Your task to perform on an android device: allow cookies in the chrome app Image 0: 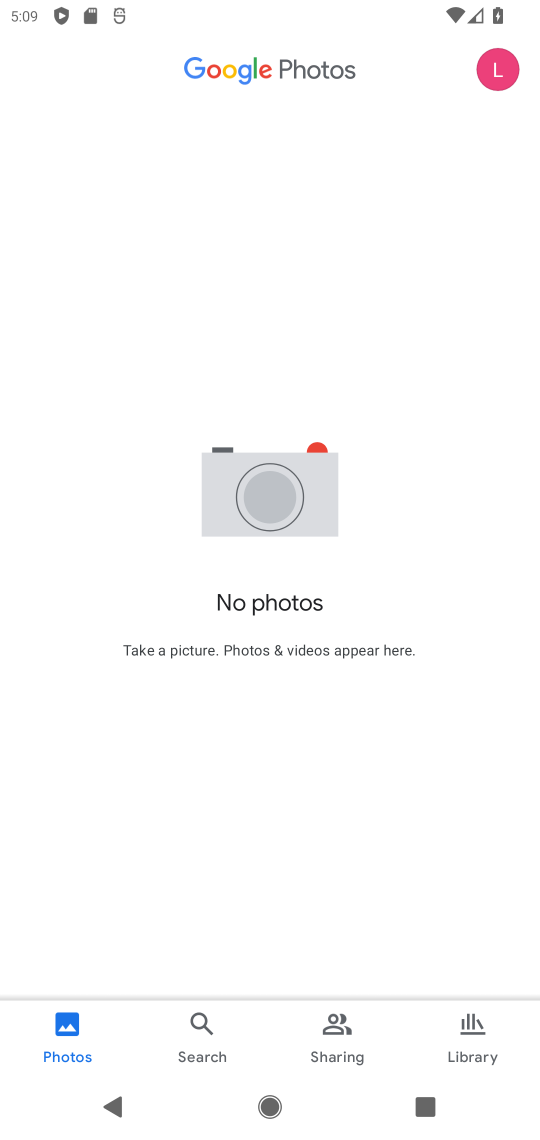
Step 0: press home button
Your task to perform on an android device: allow cookies in the chrome app Image 1: 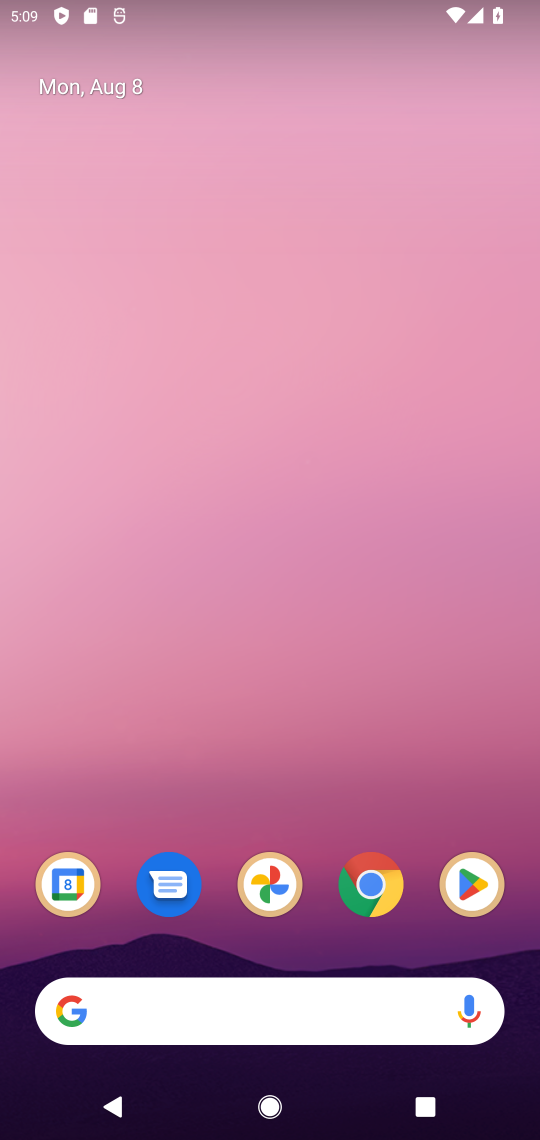
Step 1: drag from (430, 816) to (454, 148)
Your task to perform on an android device: allow cookies in the chrome app Image 2: 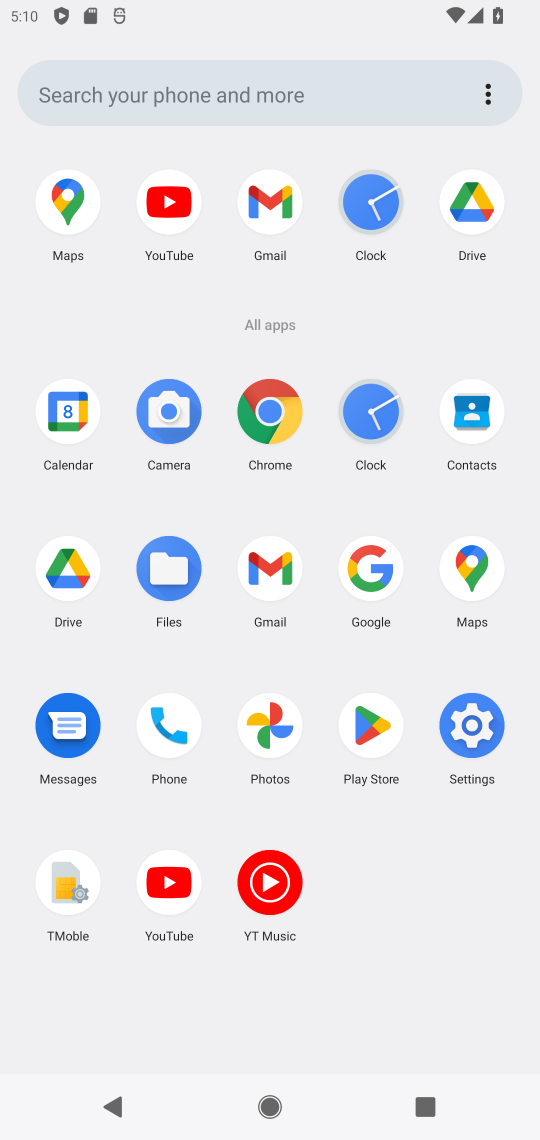
Step 2: click (279, 405)
Your task to perform on an android device: allow cookies in the chrome app Image 3: 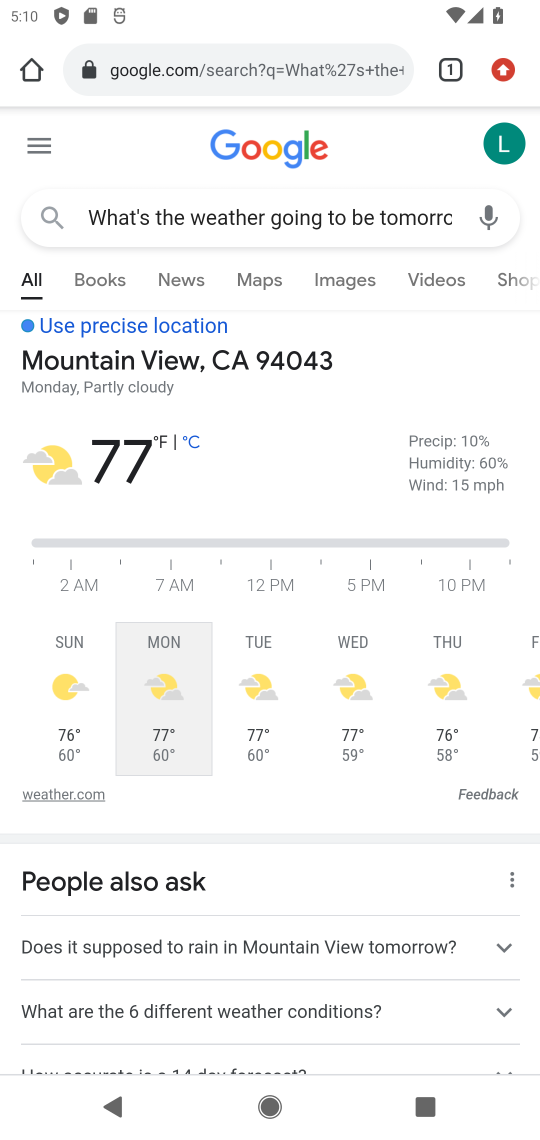
Step 3: click (509, 72)
Your task to perform on an android device: allow cookies in the chrome app Image 4: 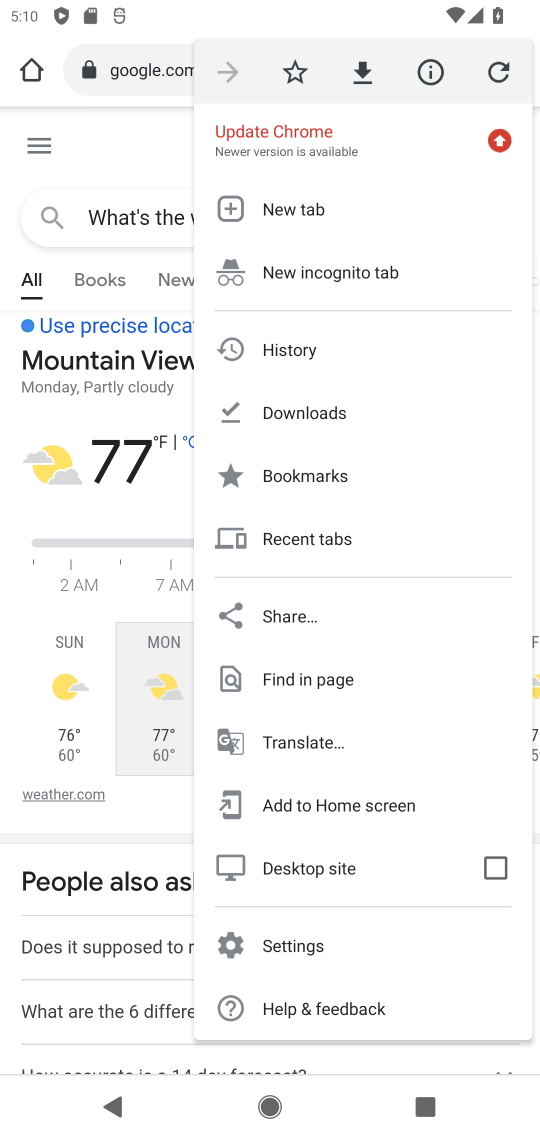
Step 4: click (303, 946)
Your task to perform on an android device: allow cookies in the chrome app Image 5: 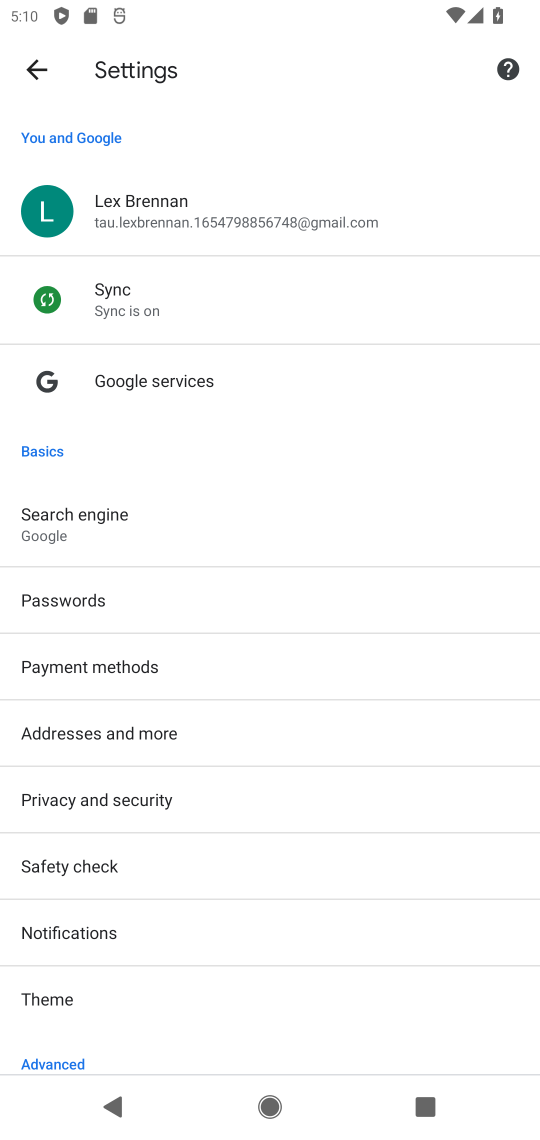
Step 5: drag from (289, 1039) to (213, 373)
Your task to perform on an android device: allow cookies in the chrome app Image 6: 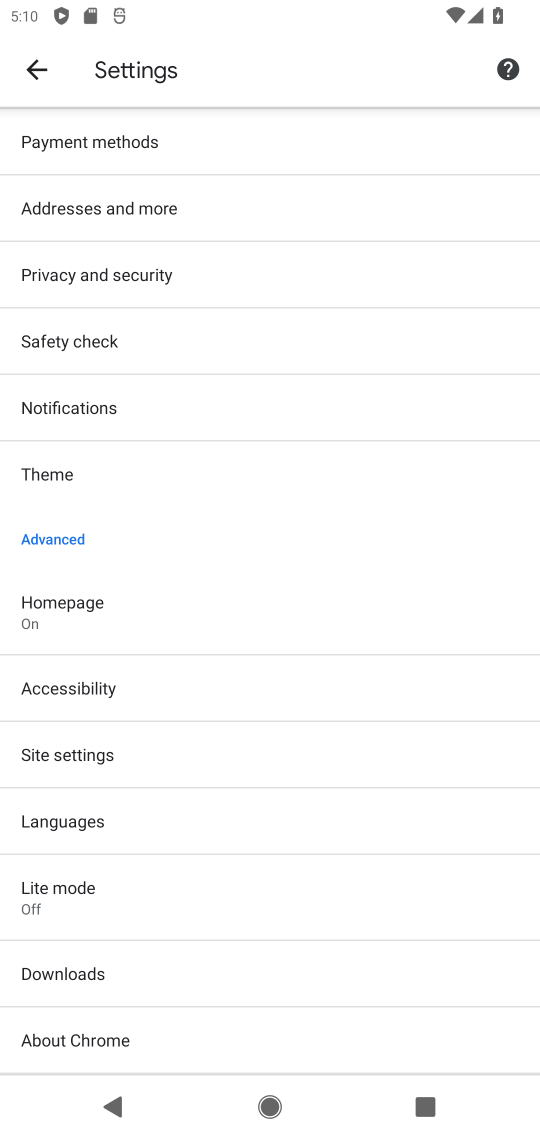
Step 6: click (177, 771)
Your task to perform on an android device: allow cookies in the chrome app Image 7: 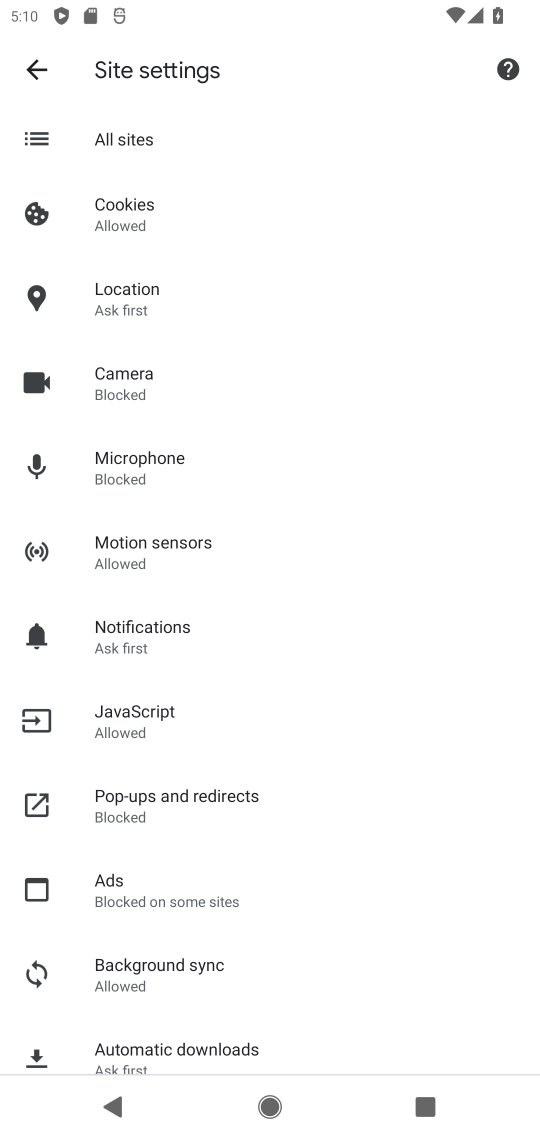
Step 7: click (229, 209)
Your task to perform on an android device: allow cookies in the chrome app Image 8: 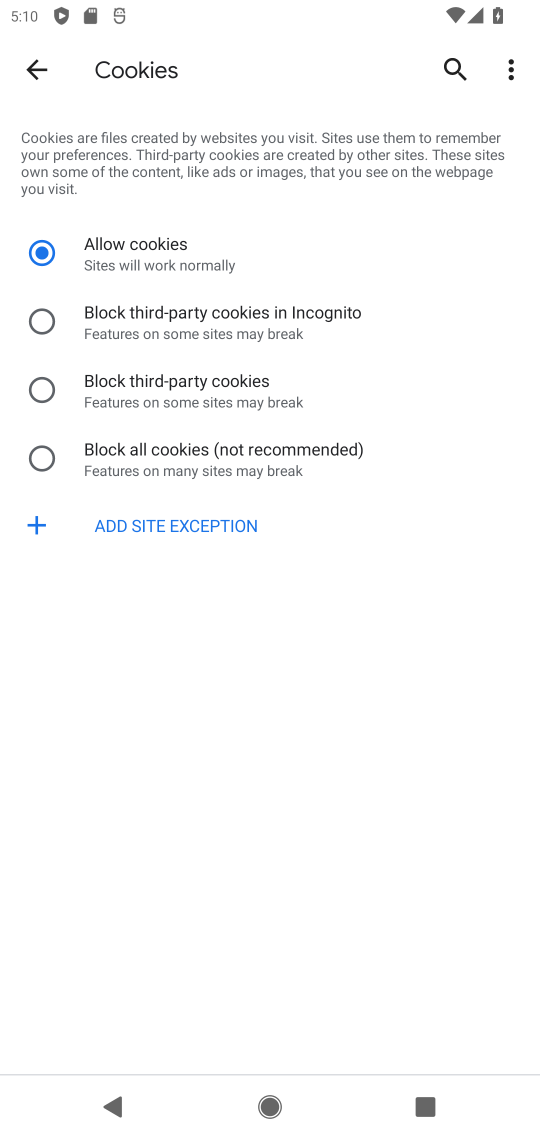
Step 8: task complete